Your task to perform on an android device: turn off wifi Image 0: 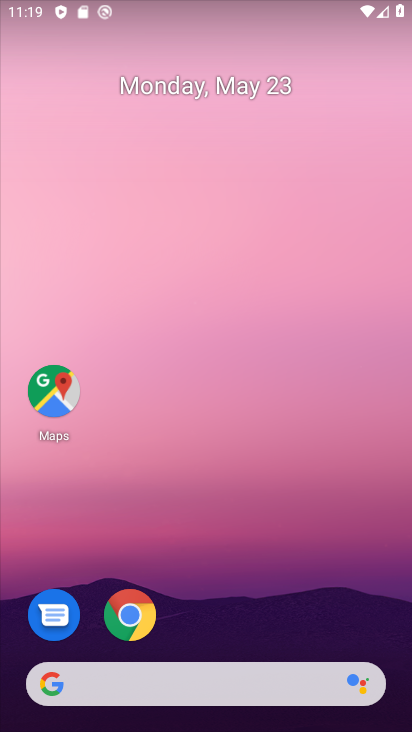
Step 0: drag from (134, 4) to (19, 419)
Your task to perform on an android device: turn off wifi Image 1: 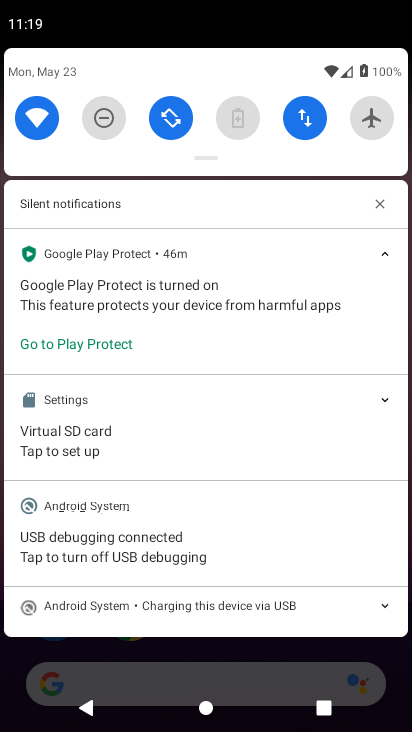
Step 1: click (41, 137)
Your task to perform on an android device: turn off wifi Image 2: 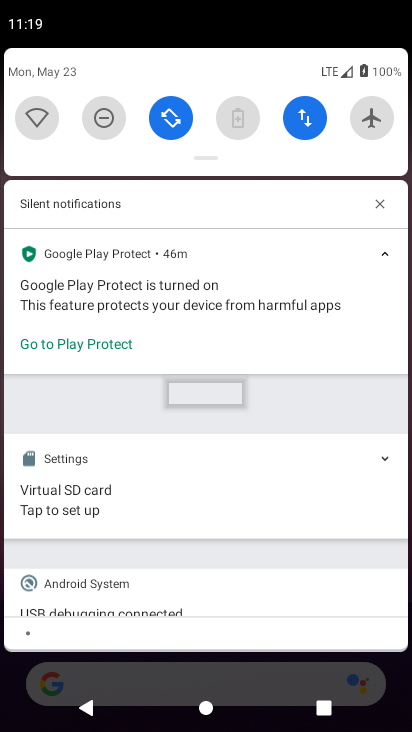
Step 2: task complete